Your task to perform on an android device: set default search engine in the chrome app Image 0: 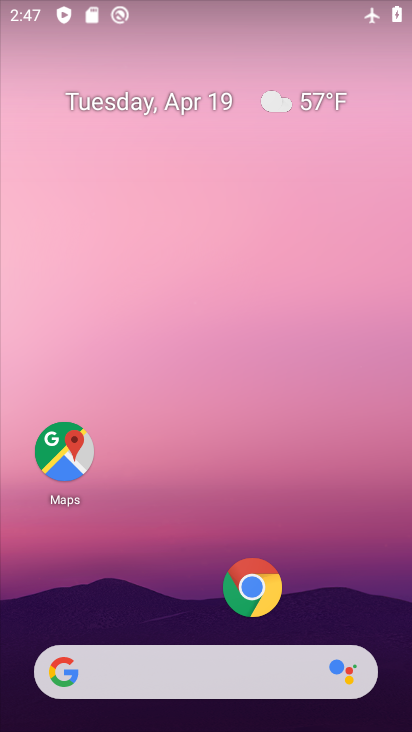
Step 0: click (263, 587)
Your task to perform on an android device: set default search engine in the chrome app Image 1: 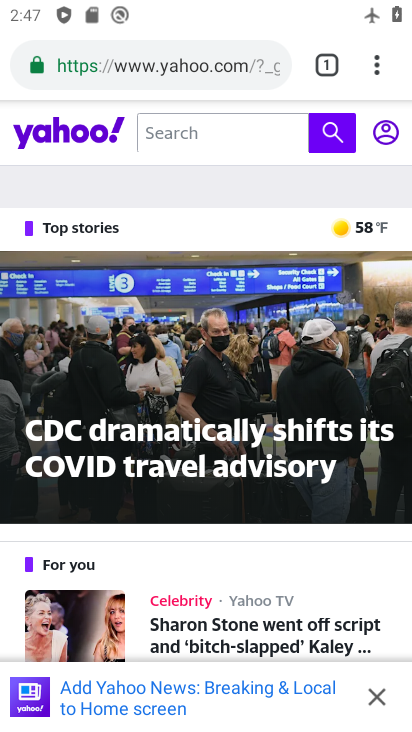
Step 1: click (372, 62)
Your task to perform on an android device: set default search engine in the chrome app Image 2: 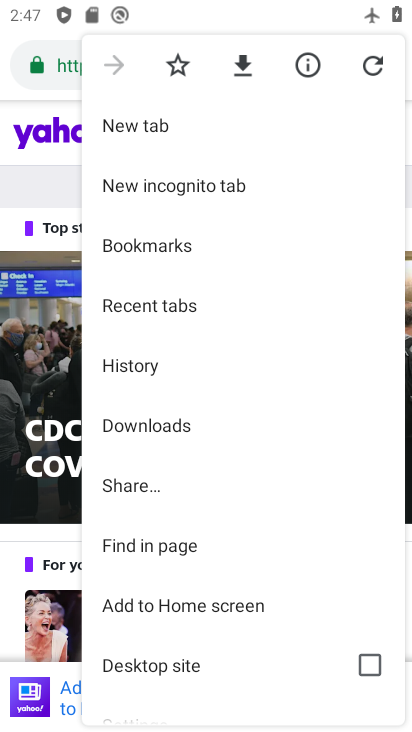
Step 2: drag from (132, 641) to (167, 309)
Your task to perform on an android device: set default search engine in the chrome app Image 3: 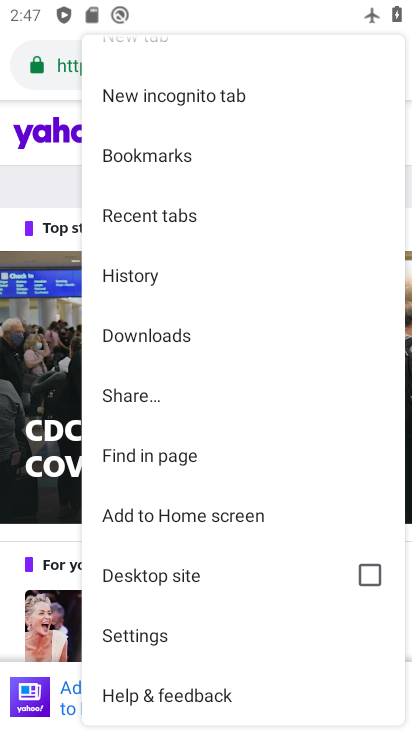
Step 3: click (127, 635)
Your task to perform on an android device: set default search engine in the chrome app Image 4: 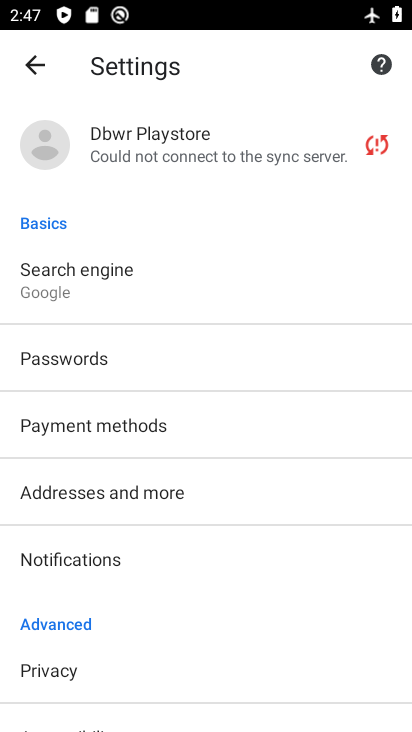
Step 4: click (90, 288)
Your task to perform on an android device: set default search engine in the chrome app Image 5: 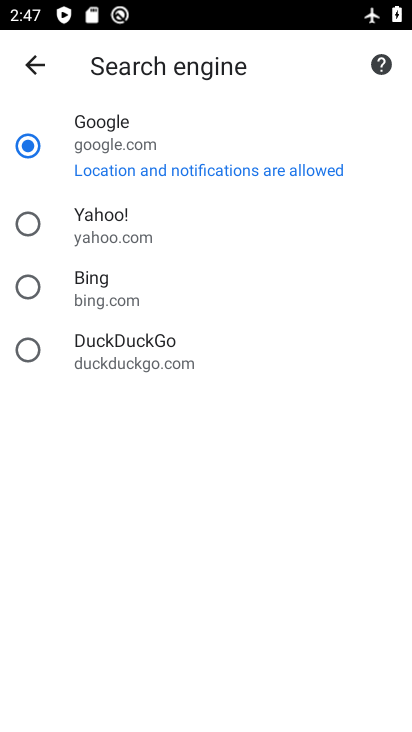
Step 5: click (28, 218)
Your task to perform on an android device: set default search engine in the chrome app Image 6: 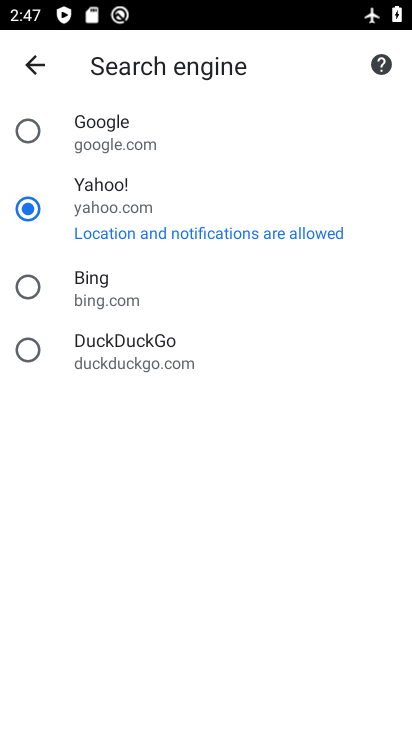
Step 6: task complete